Your task to perform on an android device: Show me popular videos on Youtube Image 0: 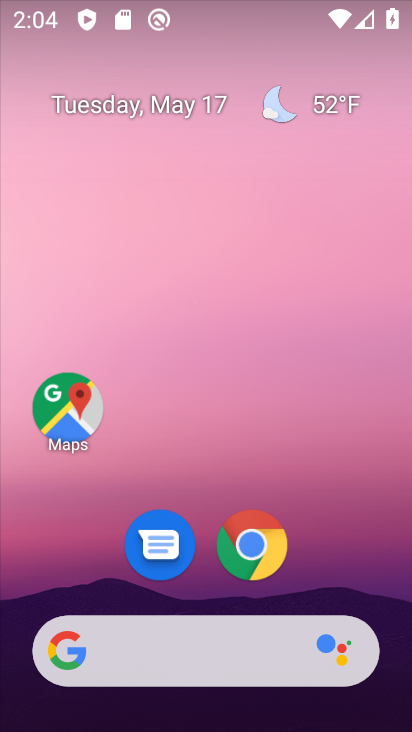
Step 0: drag from (354, 551) to (371, 284)
Your task to perform on an android device: Show me popular videos on Youtube Image 1: 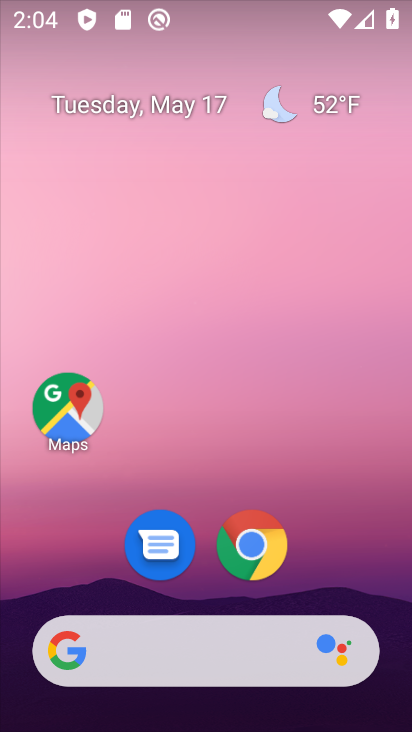
Step 1: drag from (356, 545) to (342, 234)
Your task to perform on an android device: Show me popular videos on Youtube Image 2: 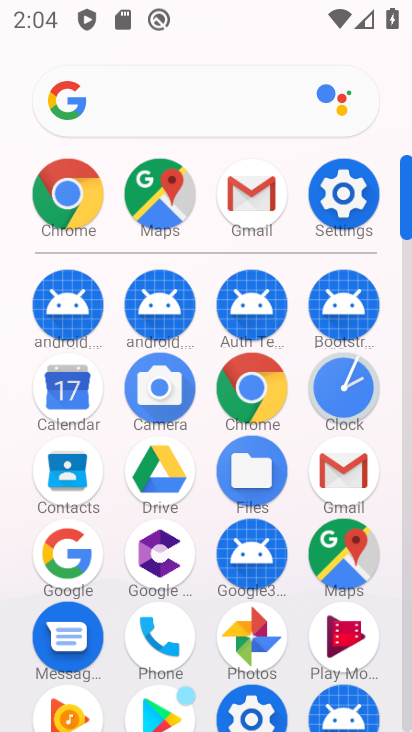
Step 2: drag from (192, 591) to (199, 437)
Your task to perform on an android device: Show me popular videos on Youtube Image 3: 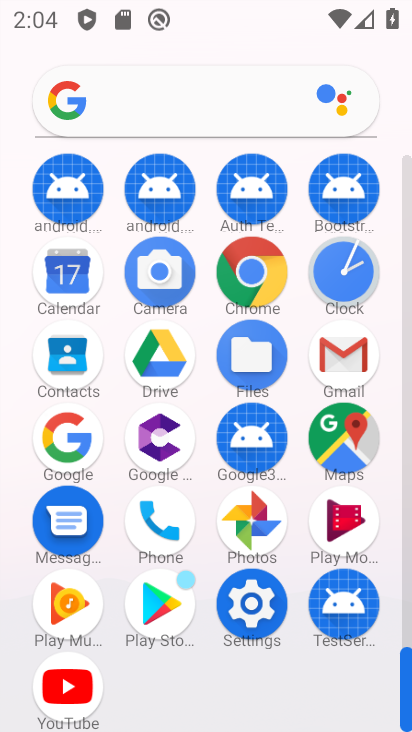
Step 3: click (71, 709)
Your task to perform on an android device: Show me popular videos on Youtube Image 4: 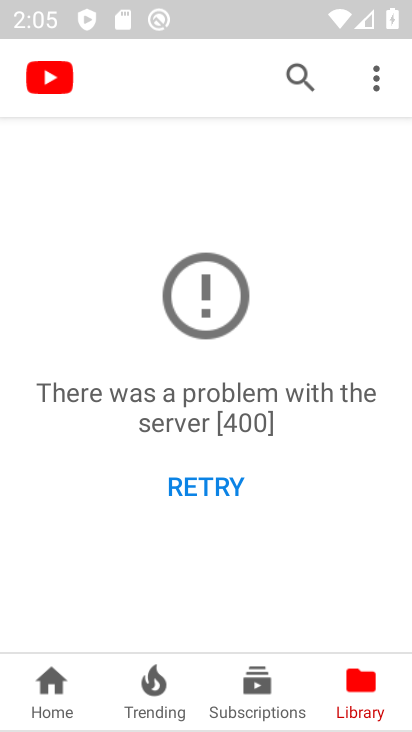
Step 4: click (60, 700)
Your task to perform on an android device: Show me popular videos on Youtube Image 5: 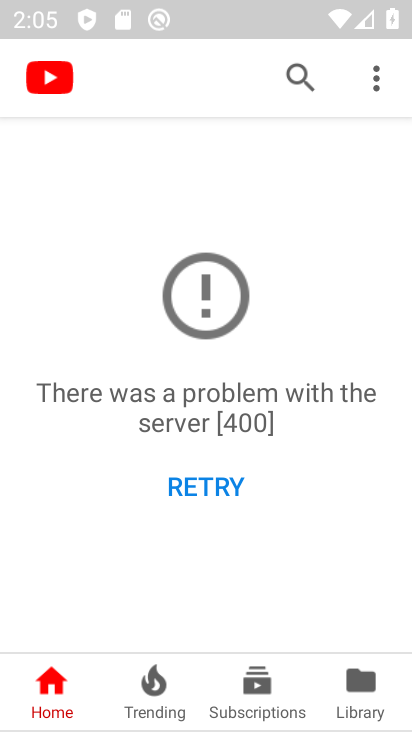
Step 5: task complete